Your task to perform on an android device: allow notifications from all sites in the chrome app Image 0: 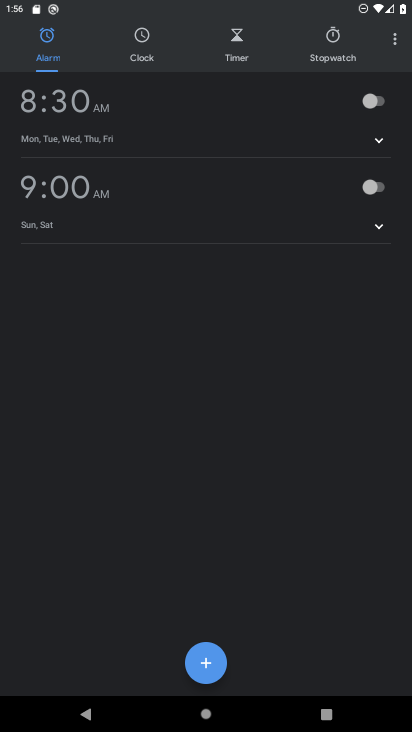
Step 0: press home button
Your task to perform on an android device: allow notifications from all sites in the chrome app Image 1: 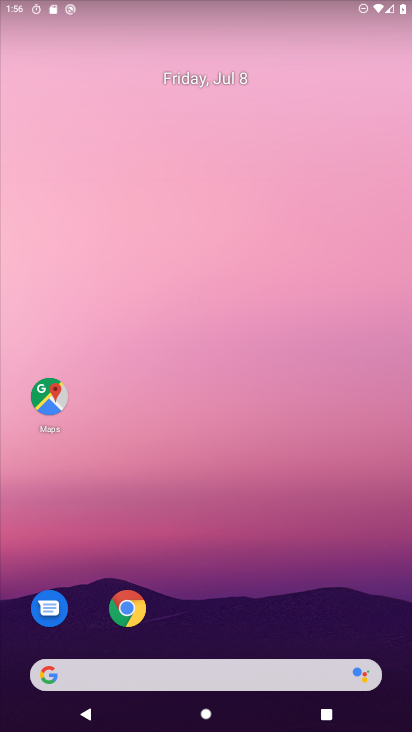
Step 1: click (127, 613)
Your task to perform on an android device: allow notifications from all sites in the chrome app Image 2: 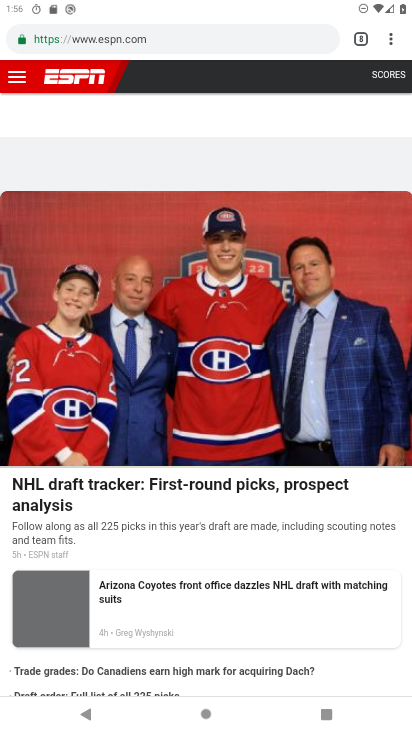
Step 2: click (390, 38)
Your task to perform on an android device: allow notifications from all sites in the chrome app Image 3: 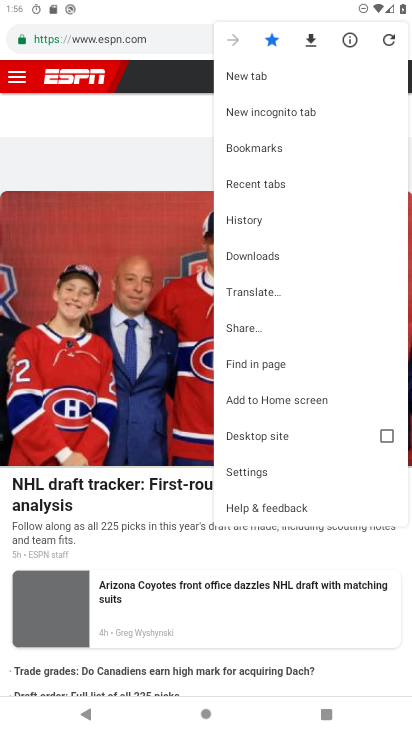
Step 3: click (253, 470)
Your task to perform on an android device: allow notifications from all sites in the chrome app Image 4: 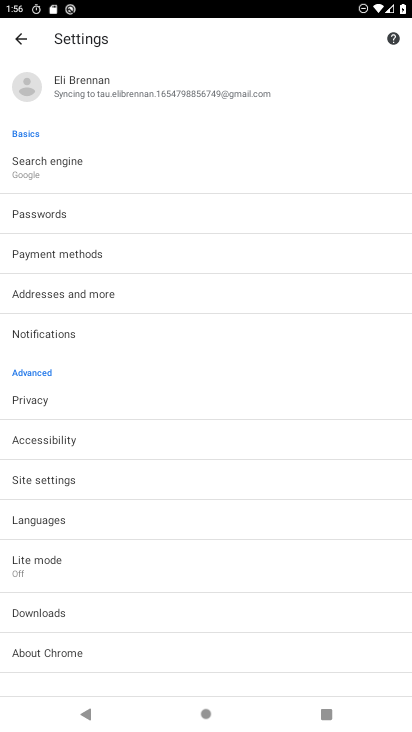
Step 4: click (38, 478)
Your task to perform on an android device: allow notifications from all sites in the chrome app Image 5: 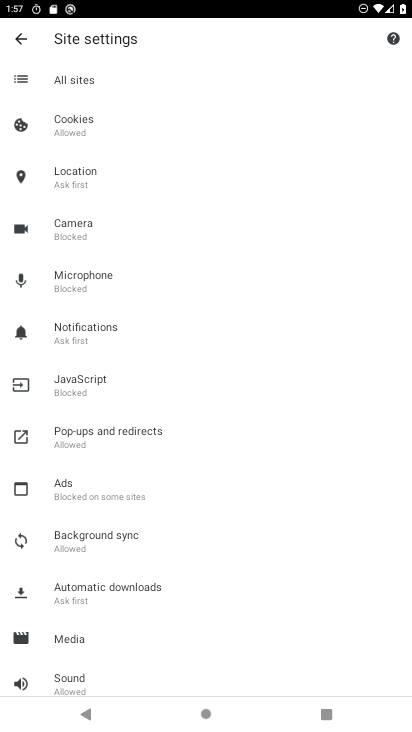
Step 5: click (78, 334)
Your task to perform on an android device: allow notifications from all sites in the chrome app Image 6: 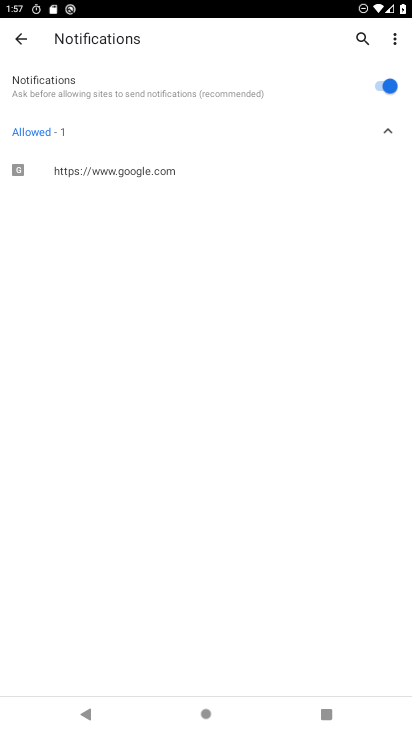
Step 6: task complete